Your task to perform on an android device: Open Amazon Image 0: 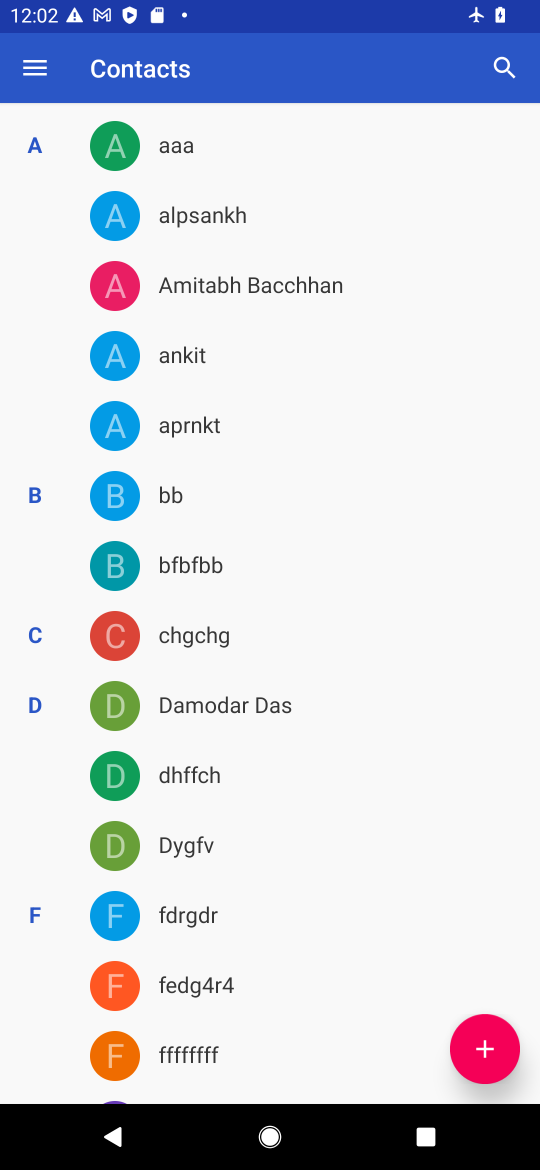
Step 0: press home button
Your task to perform on an android device: Open Amazon Image 1: 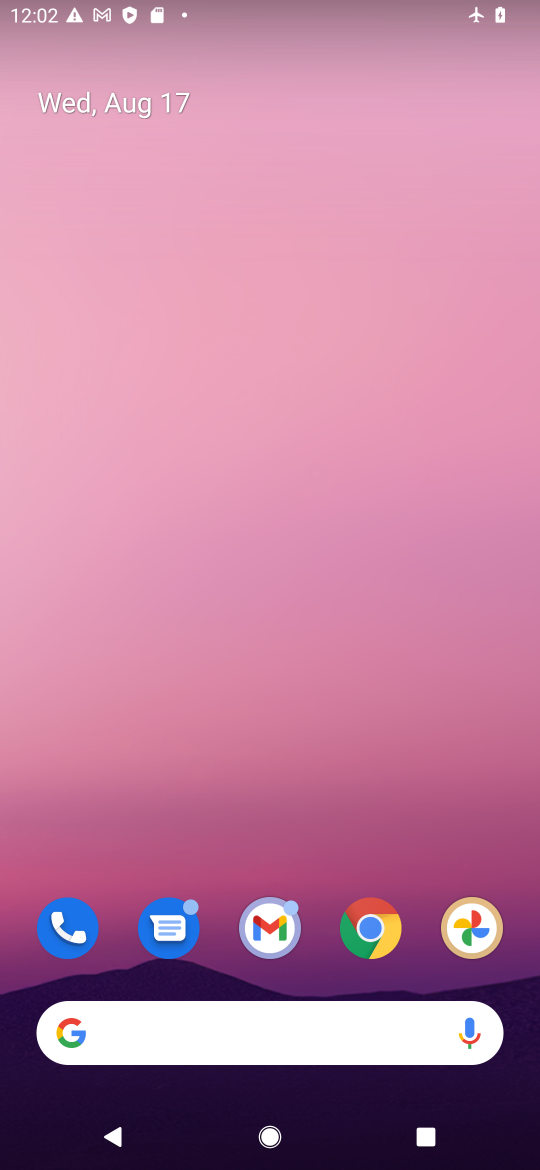
Step 1: click (359, 916)
Your task to perform on an android device: Open Amazon Image 2: 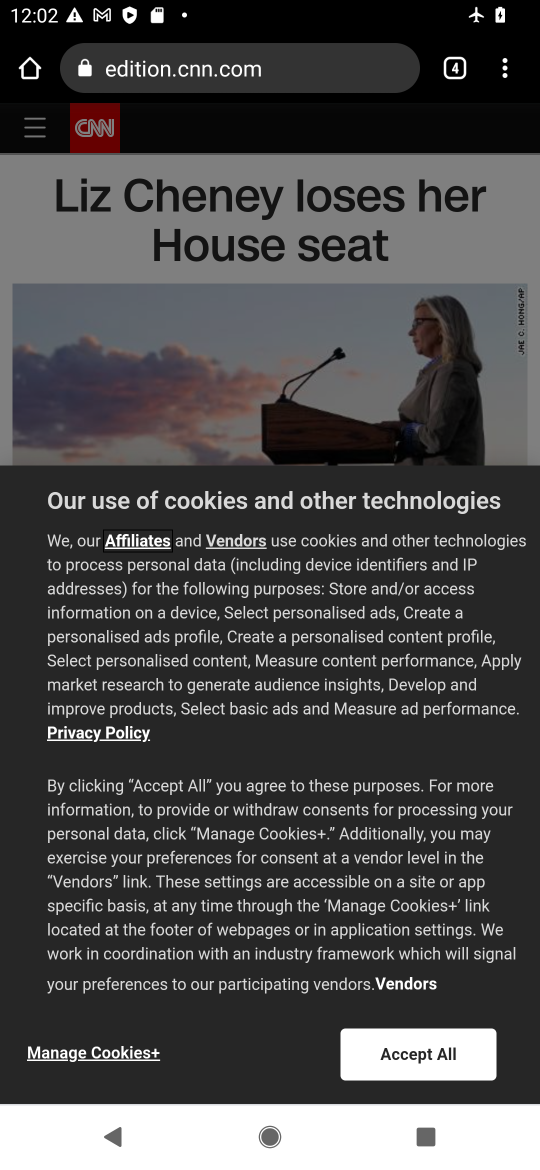
Step 2: click (450, 70)
Your task to perform on an android device: Open Amazon Image 3: 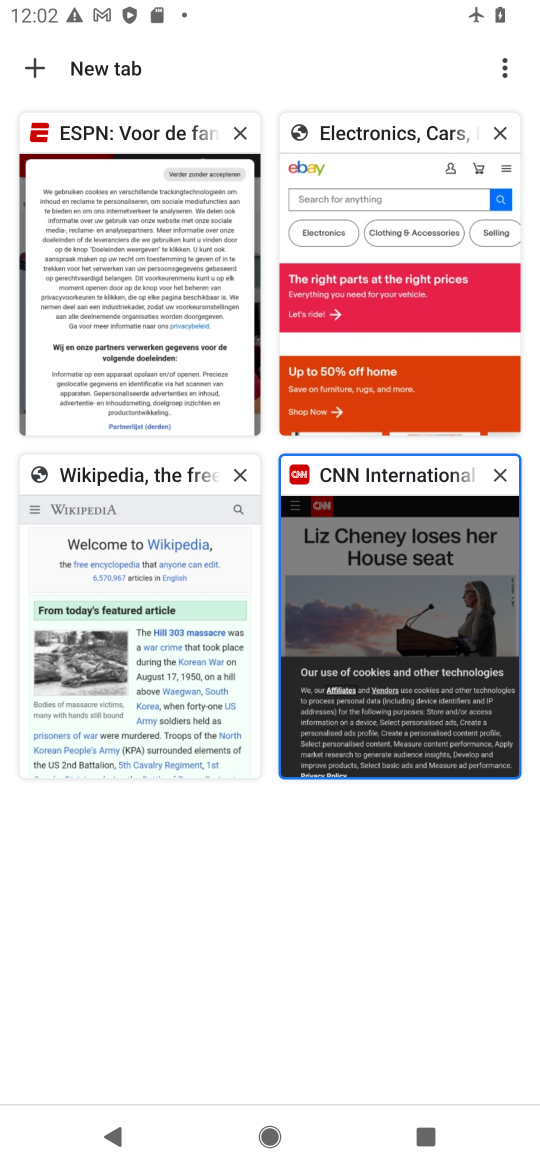
Step 3: click (27, 69)
Your task to perform on an android device: Open Amazon Image 4: 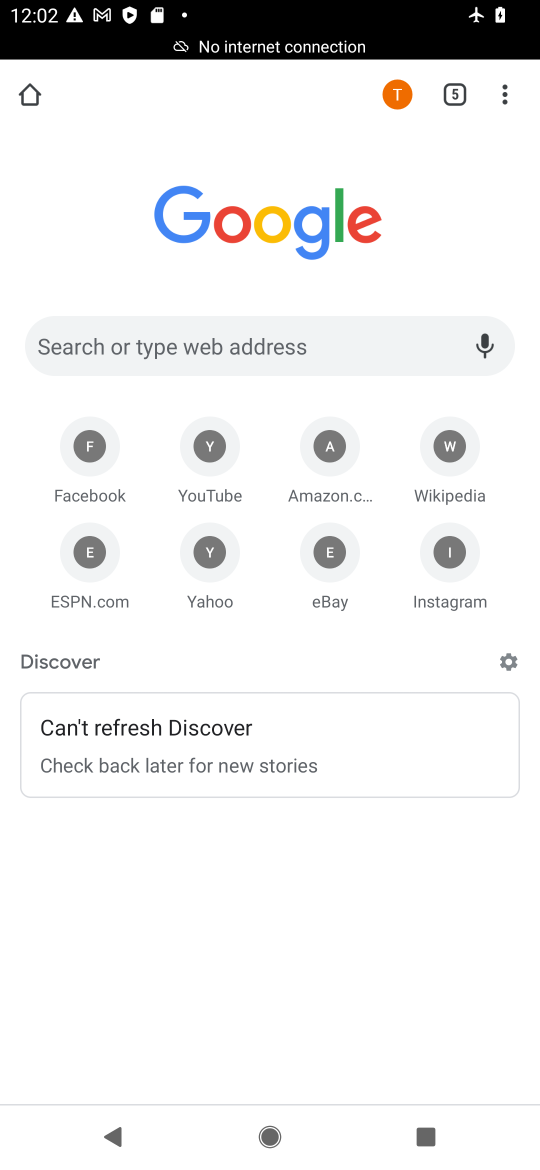
Step 4: click (324, 460)
Your task to perform on an android device: Open Amazon Image 5: 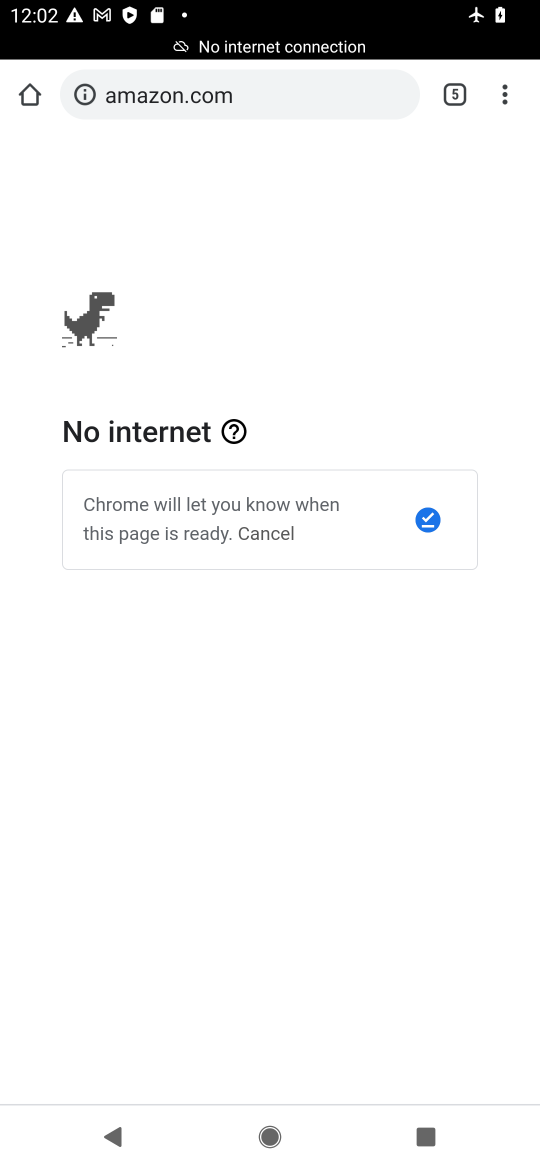
Step 5: task complete